Your task to perform on an android device: Go to settings Image 0: 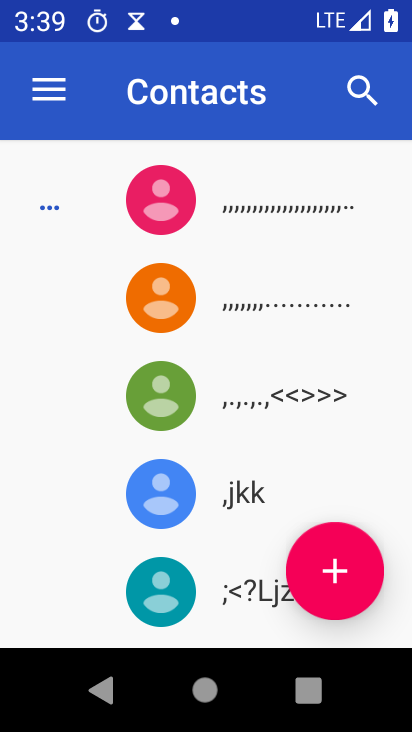
Step 0: press home button
Your task to perform on an android device: Go to settings Image 1: 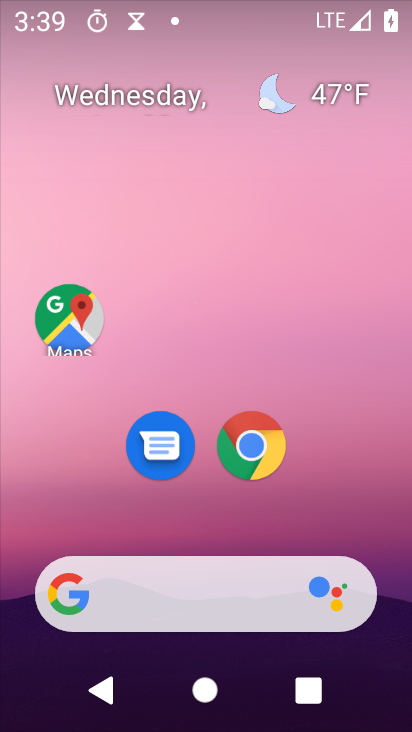
Step 1: drag from (371, 525) to (144, 728)
Your task to perform on an android device: Go to settings Image 2: 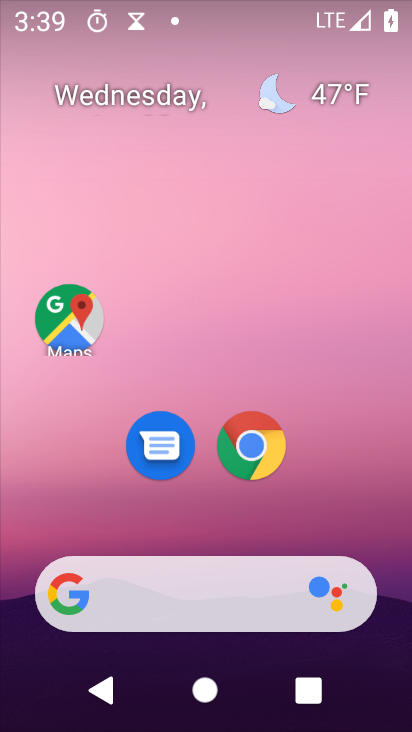
Step 2: drag from (341, 519) to (316, 4)
Your task to perform on an android device: Go to settings Image 3: 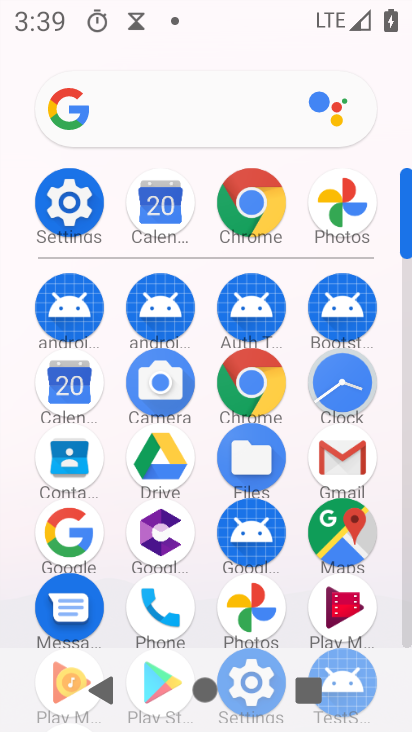
Step 3: click (55, 215)
Your task to perform on an android device: Go to settings Image 4: 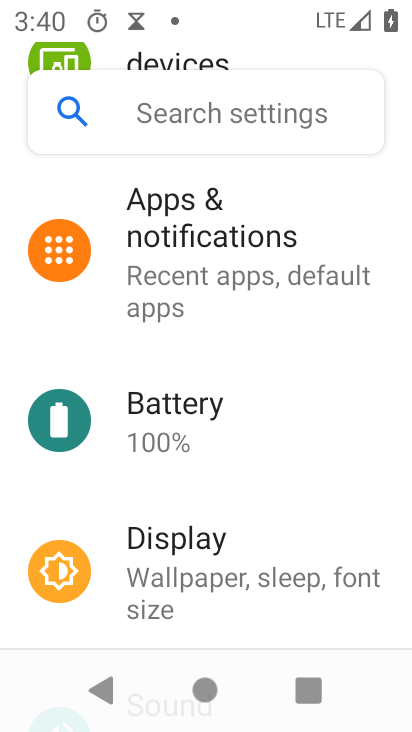
Step 4: task complete